Your task to perform on an android device: Go to network settings Image 0: 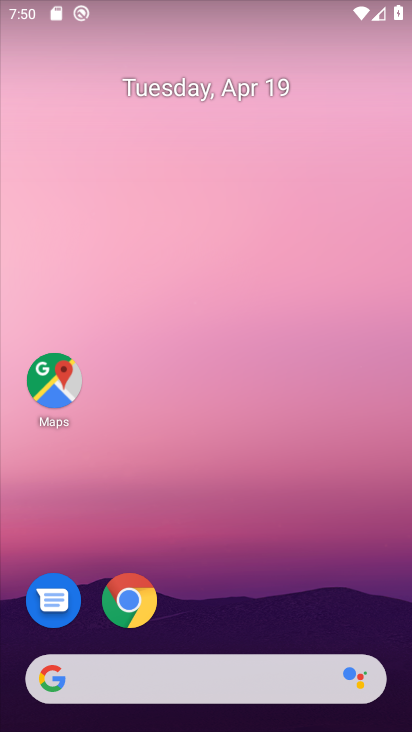
Step 0: drag from (382, 584) to (364, 101)
Your task to perform on an android device: Go to network settings Image 1: 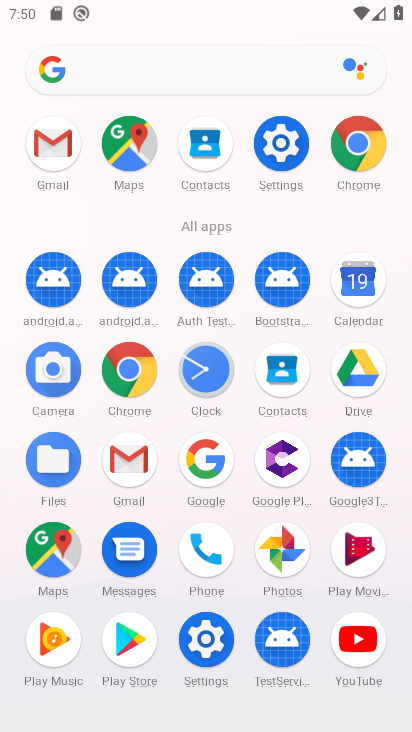
Step 1: click (291, 149)
Your task to perform on an android device: Go to network settings Image 2: 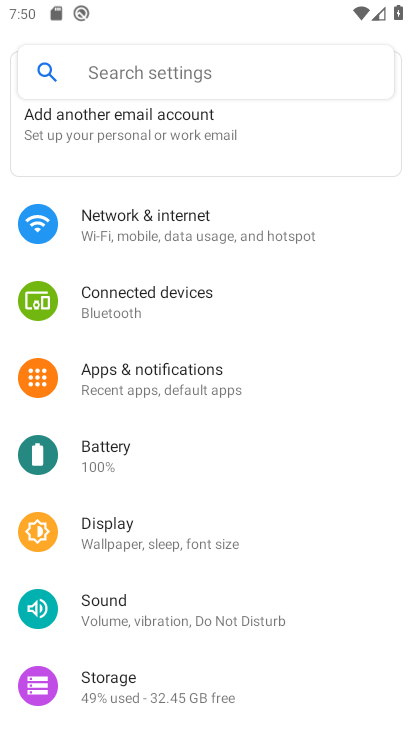
Step 2: drag from (364, 539) to (376, 336)
Your task to perform on an android device: Go to network settings Image 3: 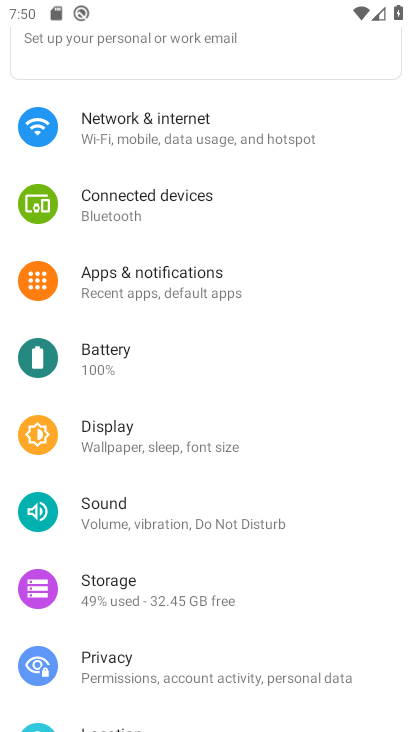
Step 3: drag from (364, 490) to (380, 264)
Your task to perform on an android device: Go to network settings Image 4: 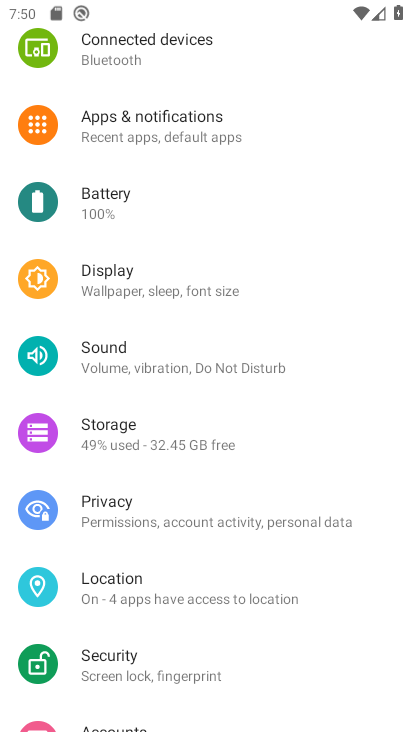
Step 4: drag from (369, 571) to (372, 191)
Your task to perform on an android device: Go to network settings Image 5: 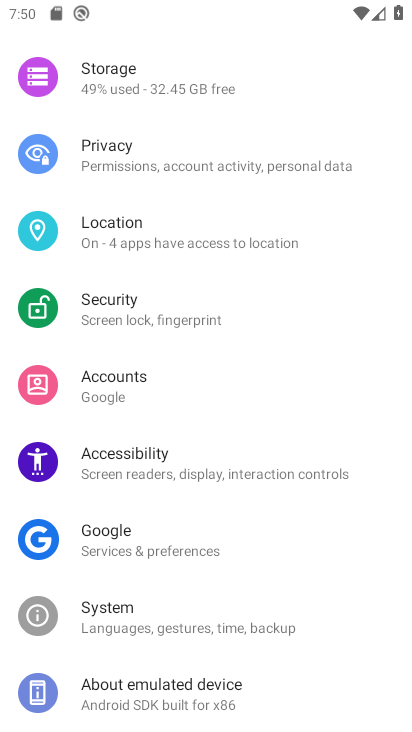
Step 5: drag from (373, 227) to (374, 422)
Your task to perform on an android device: Go to network settings Image 6: 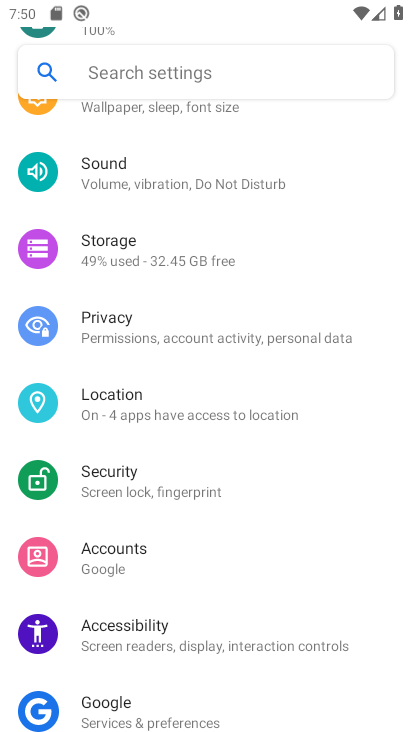
Step 6: drag from (363, 253) to (358, 469)
Your task to perform on an android device: Go to network settings Image 7: 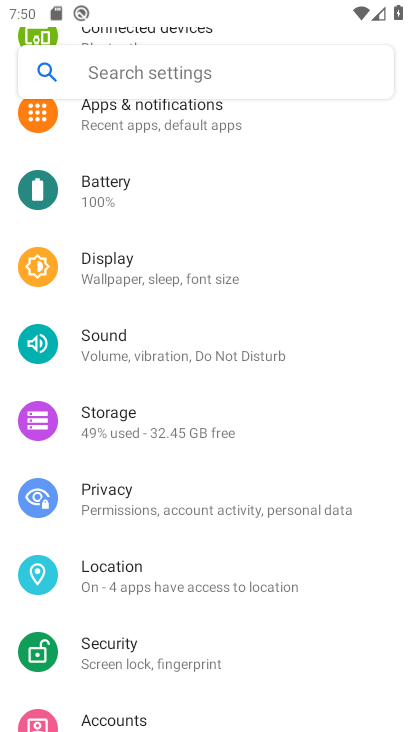
Step 7: drag from (379, 276) to (375, 417)
Your task to perform on an android device: Go to network settings Image 8: 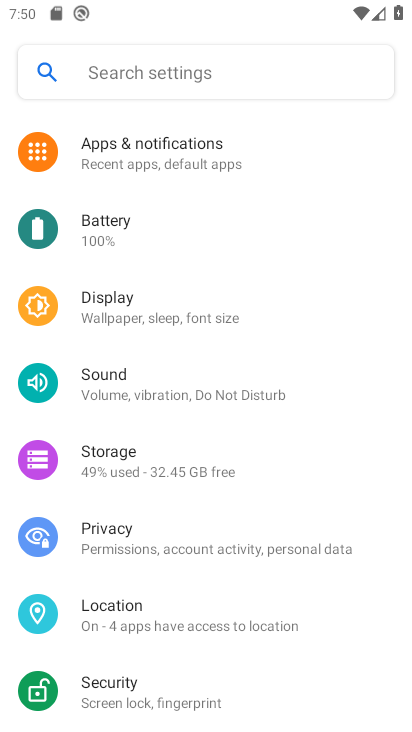
Step 8: drag from (359, 197) to (361, 419)
Your task to perform on an android device: Go to network settings Image 9: 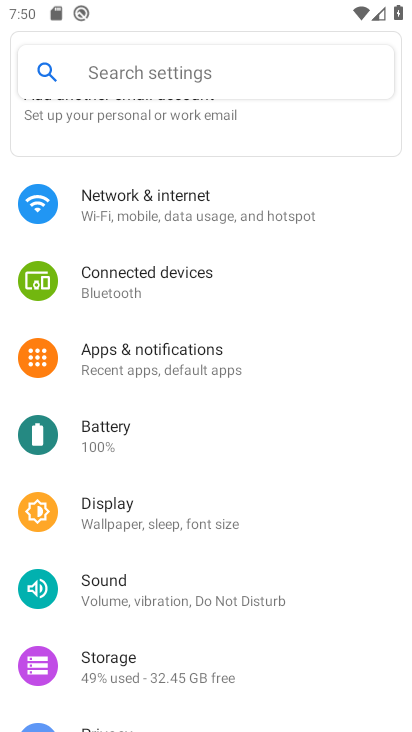
Step 9: click (243, 198)
Your task to perform on an android device: Go to network settings Image 10: 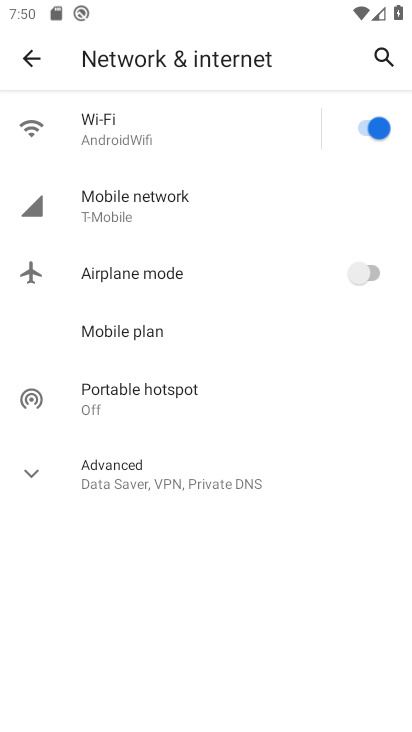
Step 10: task complete